Your task to perform on an android device: Open Yahoo.com Image 0: 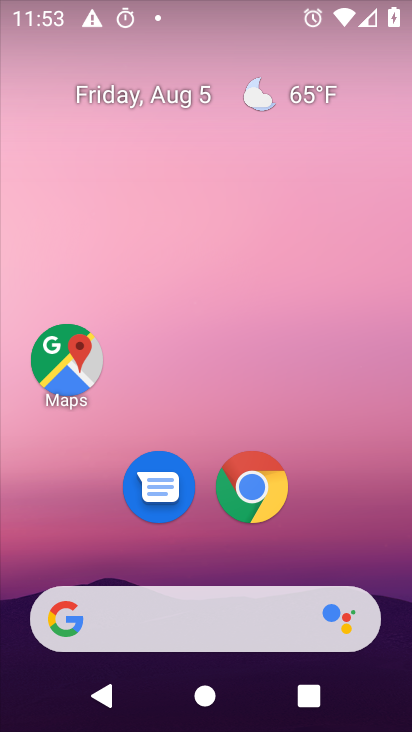
Step 0: click (263, 491)
Your task to perform on an android device: Open Yahoo.com Image 1: 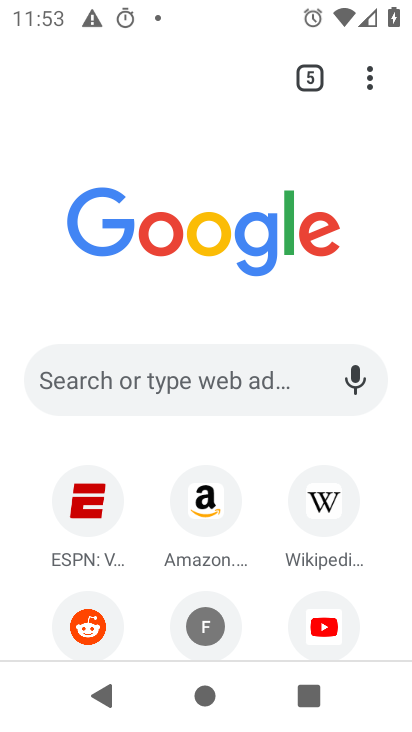
Step 1: drag from (223, 607) to (282, 255)
Your task to perform on an android device: Open Yahoo.com Image 2: 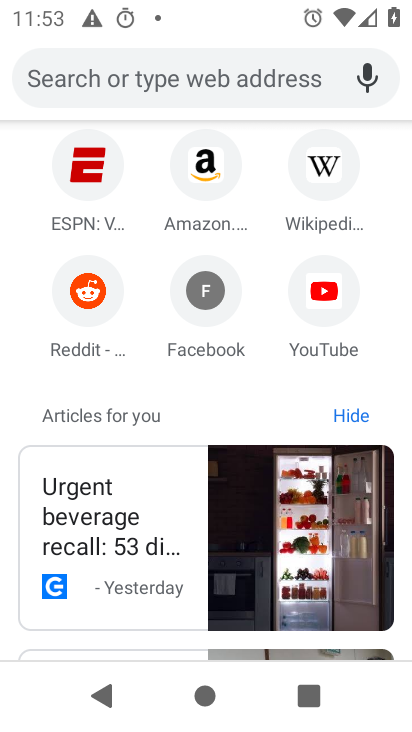
Step 2: click (228, 79)
Your task to perform on an android device: Open Yahoo.com Image 3: 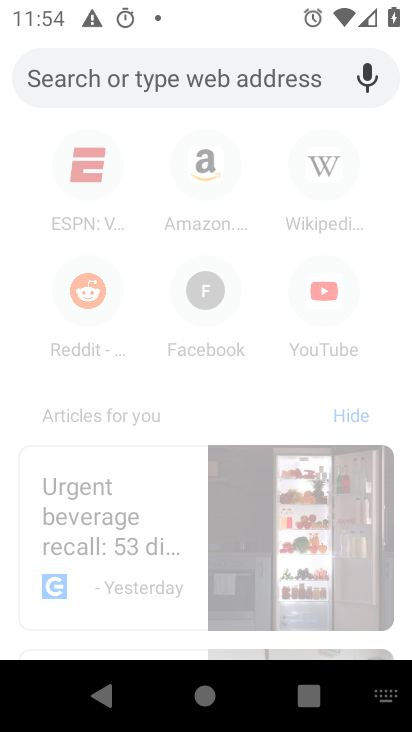
Step 3: type "yahoo"
Your task to perform on an android device: Open Yahoo.com Image 4: 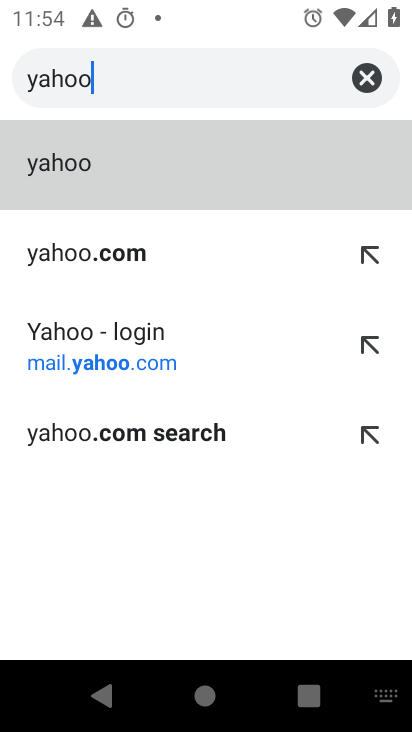
Step 4: click (100, 344)
Your task to perform on an android device: Open Yahoo.com Image 5: 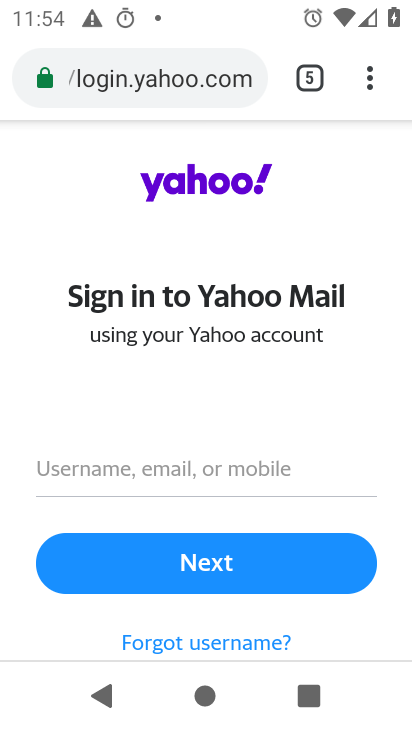
Step 5: task complete